Your task to perform on an android device: open sync settings in chrome Image 0: 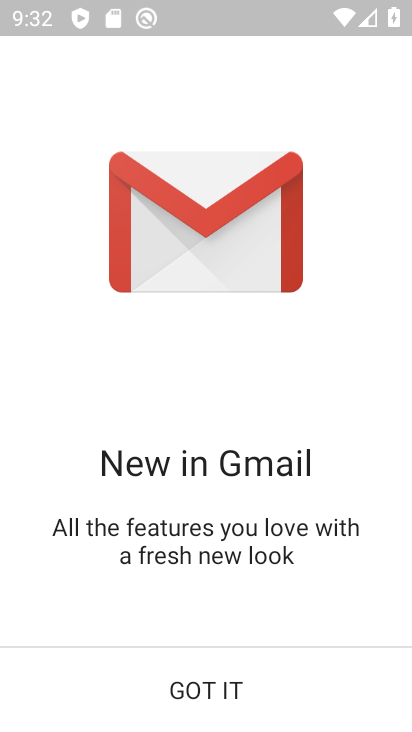
Step 0: press home button
Your task to perform on an android device: open sync settings in chrome Image 1: 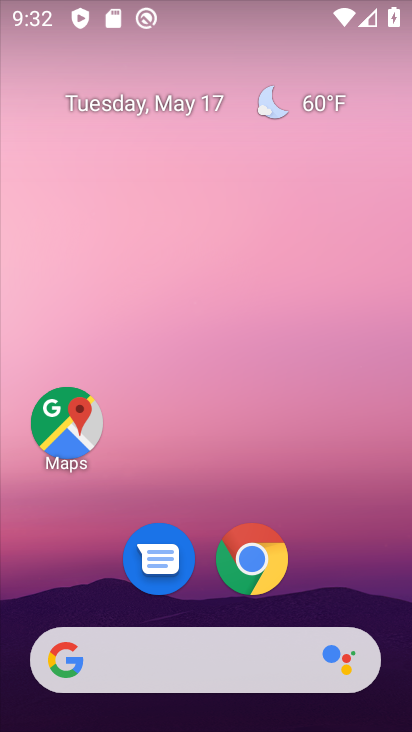
Step 1: click (266, 561)
Your task to perform on an android device: open sync settings in chrome Image 2: 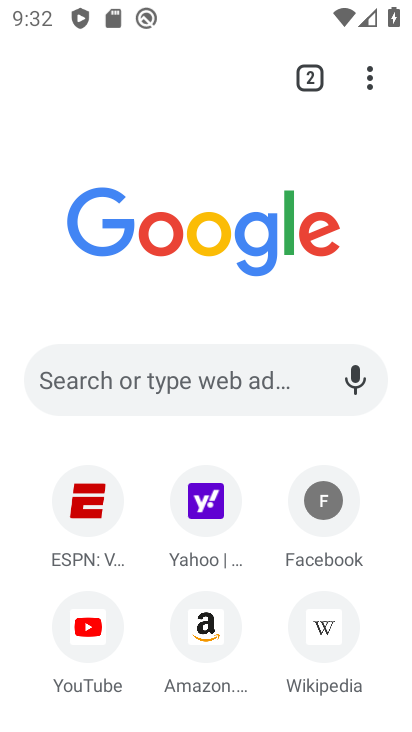
Step 2: drag from (379, 60) to (211, 635)
Your task to perform on an android device: open sync settings in chrome Image 3: 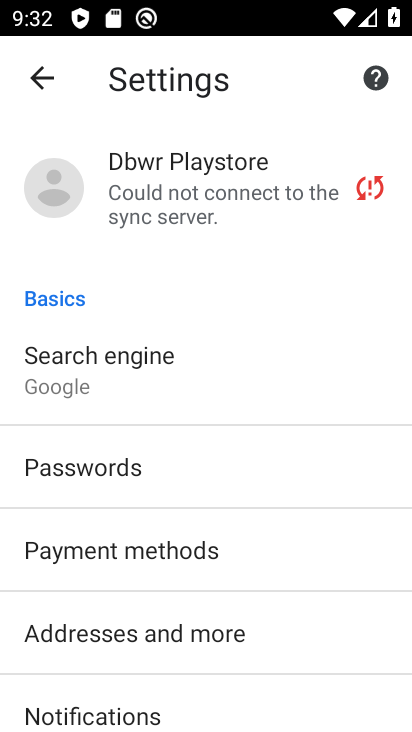
Step 3: click (178, 161)
Your task to perform on an android device: open sync settings in chrome Image 4: 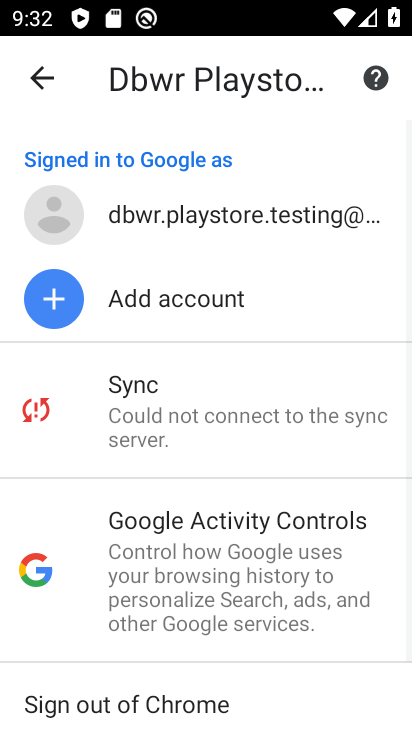
Step 4: click (189, 399)
Your task to perform on an android device: open sync settings in chrome Image 5: 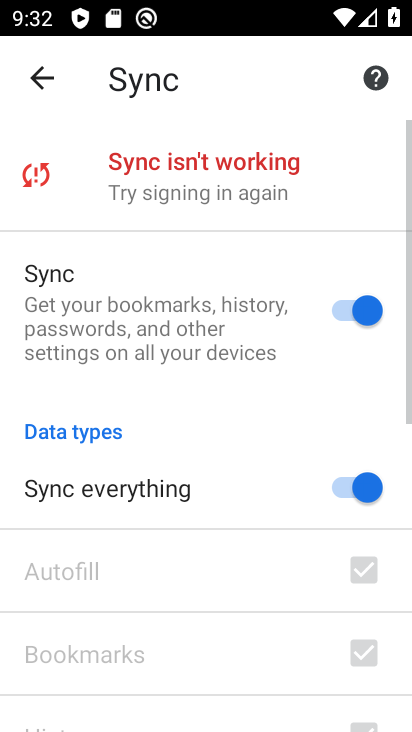
Step 5: task complete